Your task to perform on an android device: turn off location Image 0: 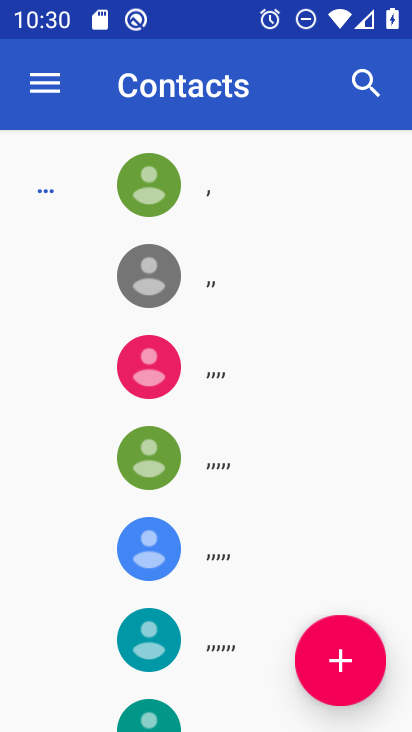
Step 0: press home button
Your task to perform on an android device: turn off location Image 1: 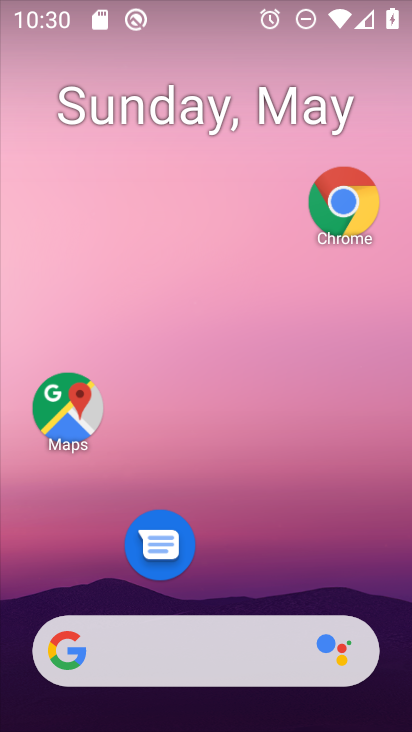
Step 1: drag from (248, 595) to (276, 1)
Your task to perform on an android device: turn off location Image 2: 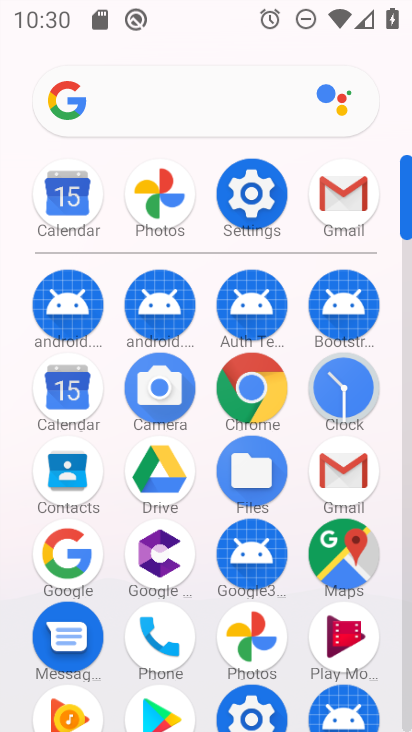
Step 2: click (250, 196)
Your task to perform on an android device: turn off location Image 3: 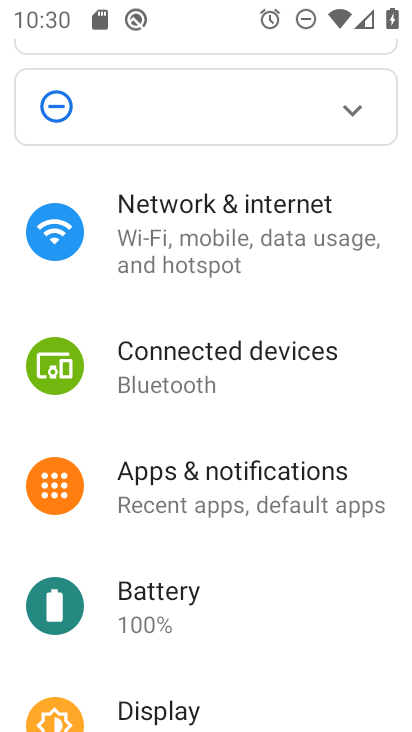
Step 3: drag from (233, 518) to (227, 189)
Your task to perform on an android device: turn off location Image 4: 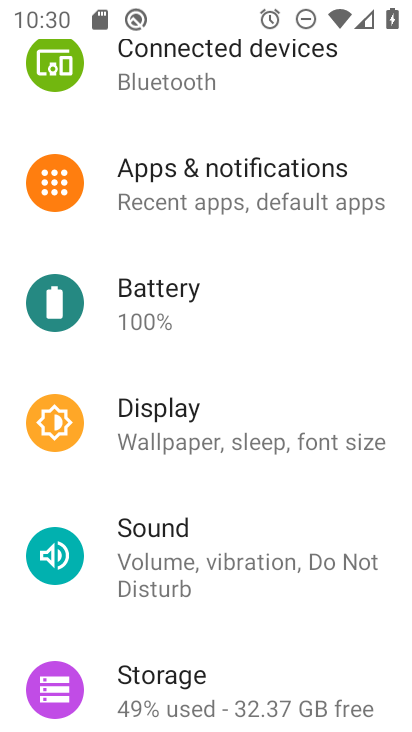
Step 4: drag from (209, 529) to (229, 199)
Your task to perform on an android device: turn off location Image 5: 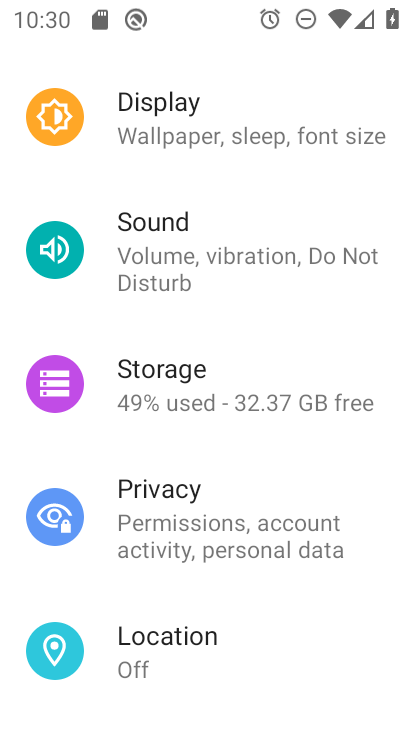
Step 5: click (229, 661)
Your task to perform on an android device: turn off location Image 6: 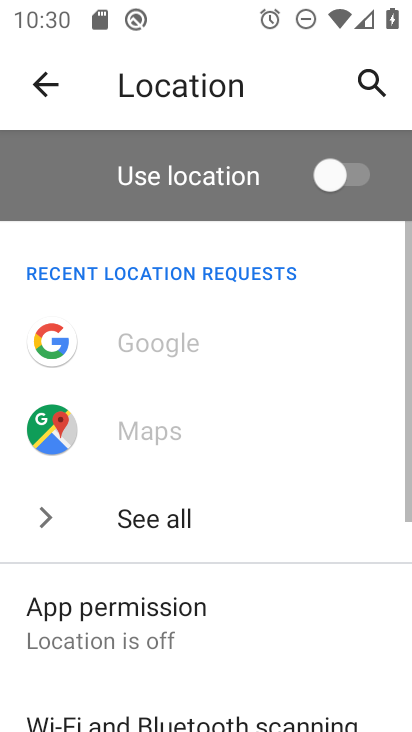
Step 6: task complete